Your task to perform on an android device: Show me popular games on the Play Store Image 0: 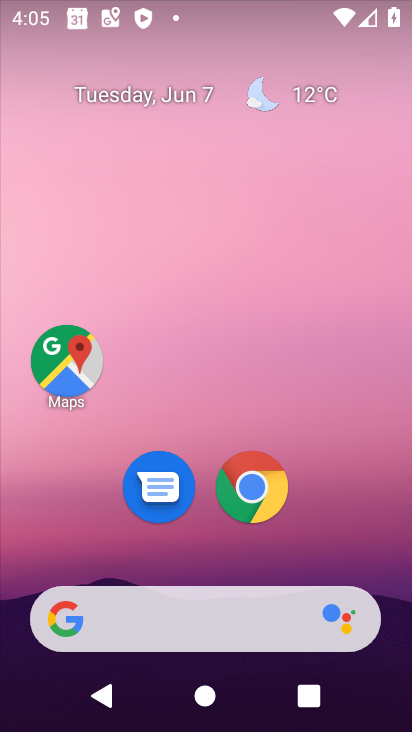
Step 0: drag from (195, 552) to (269, 59)
Your task to perform on an android device: Show me popular games on the Play Store Image 1: 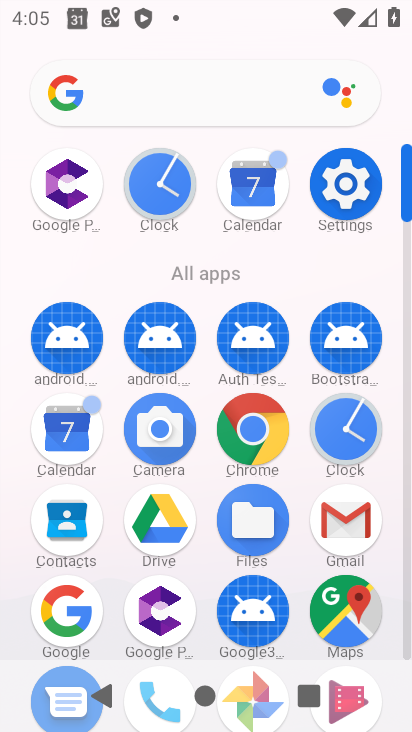
Step 1: drag from (212, 602) to (268, 170)
Your task to perform on an android device: Show me popular games on the Play Store Image 2: 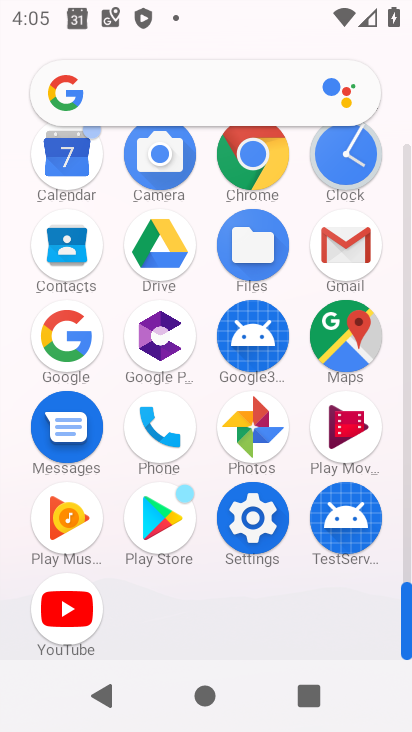
Step 2: click (154, 522)
Your task to perform on an android device: Show me popular games on the Play Store Image 3: 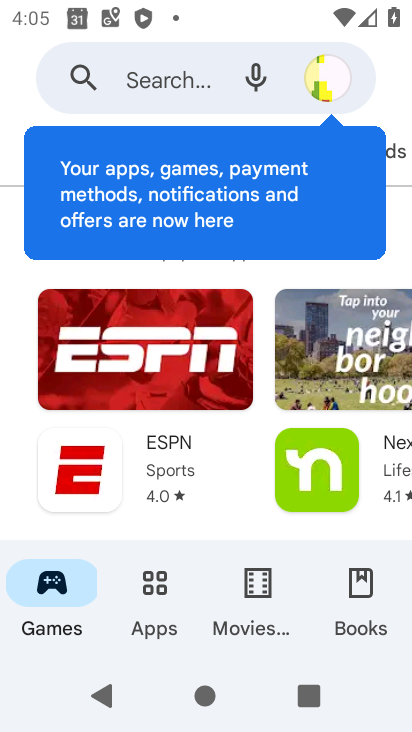
Step 3: drag from (193, 495) to (268, 62)
Your task to perform on an android device: Show me popular games on the Play Store Image 4: 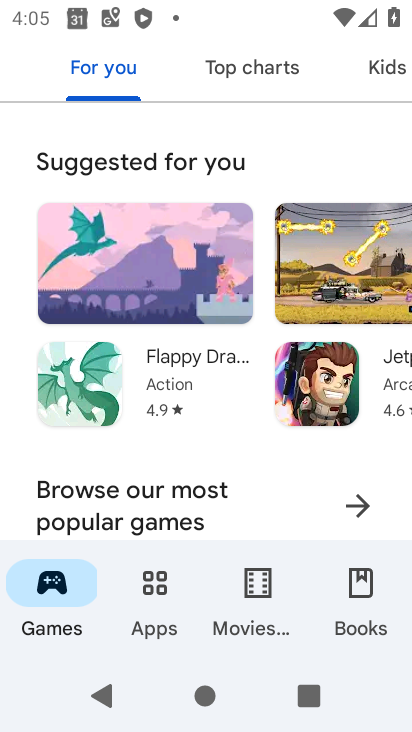
Step 4: drag from (180, 509) to (222, 275)
Your task to perform on an android device: Show me popular games on the Play Store Image 5: 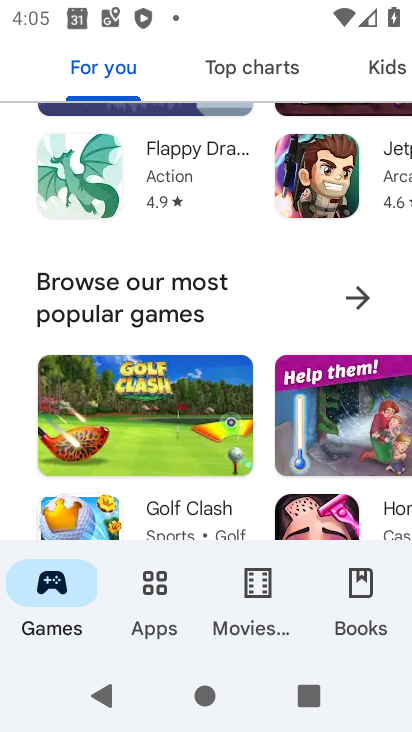
Step 5: click (372, 297)
Your task to perform on an android device: Show me popular games on the Play Store Image 6: 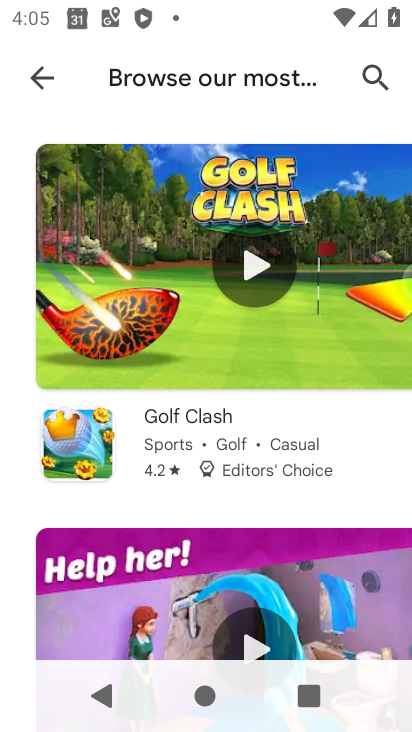
Step 6: task complete